Your task to perform on an android device: What's the weather going to be this weekend? Image 0: 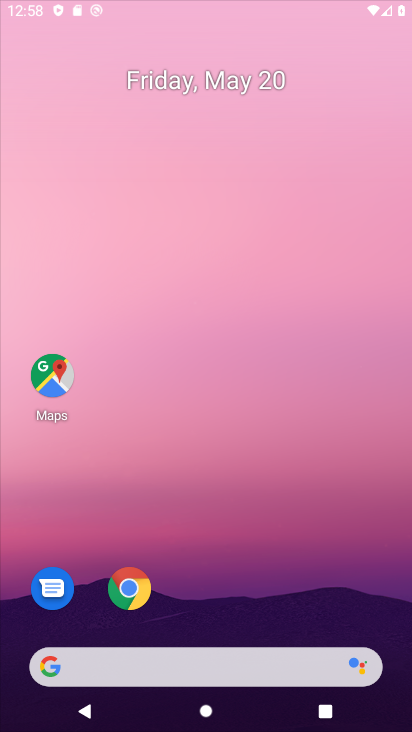
Step 0: drag from (201, 3) to (195, 730)
Your task to perform on an android device: What's the weather going to be this weekend? Image 1: 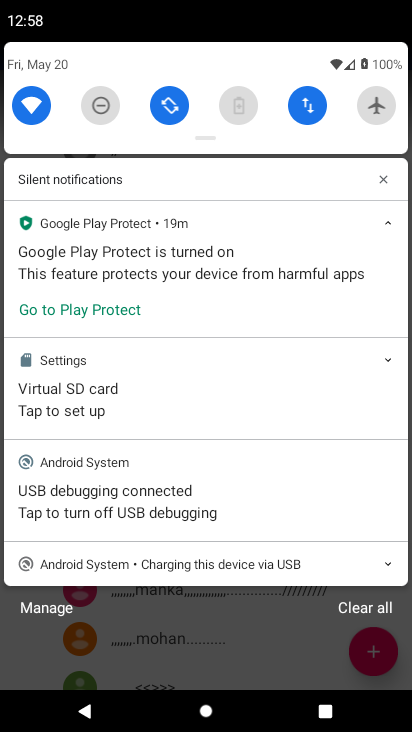
Step 1: click (297, 106)
Your task to perform on an android device: What's the weather going to be this weekend? Image 2: 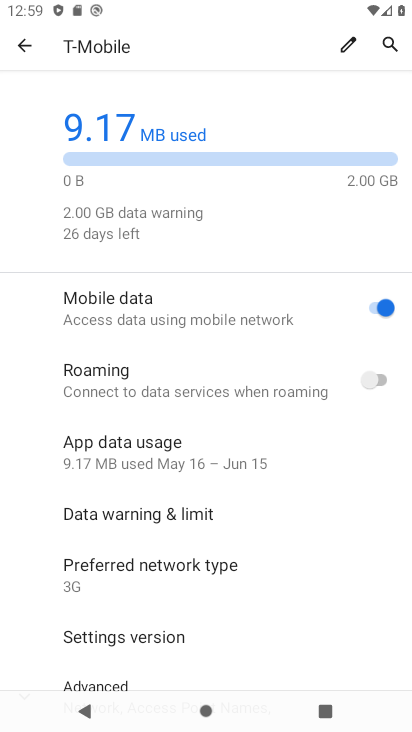
Step 2: task complete